Your task to perform on an android device: Turn off the flashlight Image 0: 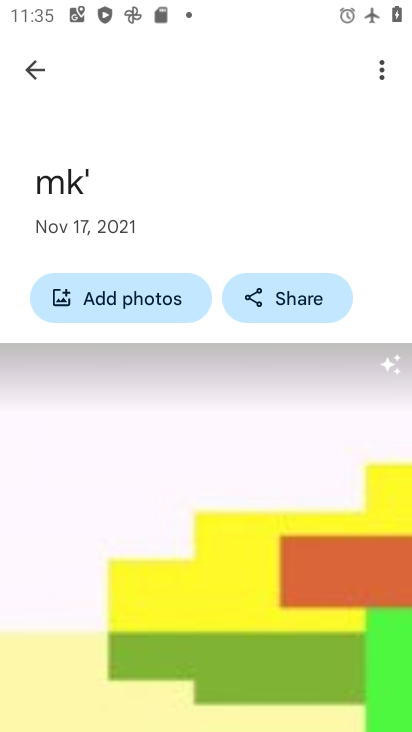
Step 0: press home button
Your task to perform on an android device: Turn off the flashlight Image 1: 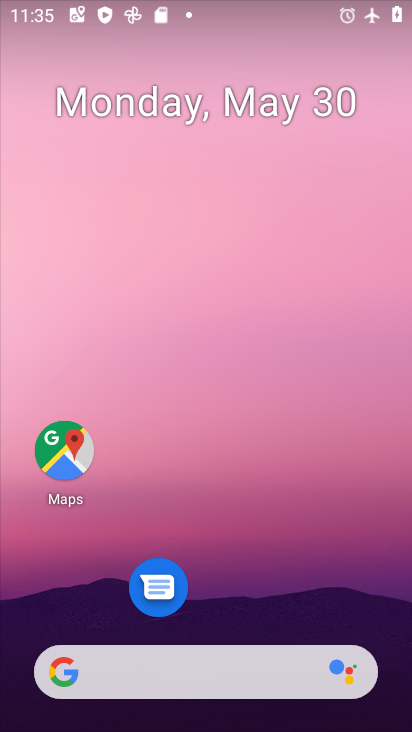
Step 1: drag from (239, 635) to (239, 19)
Your task to perform on an android device: Turn off the flashlight Image 2: 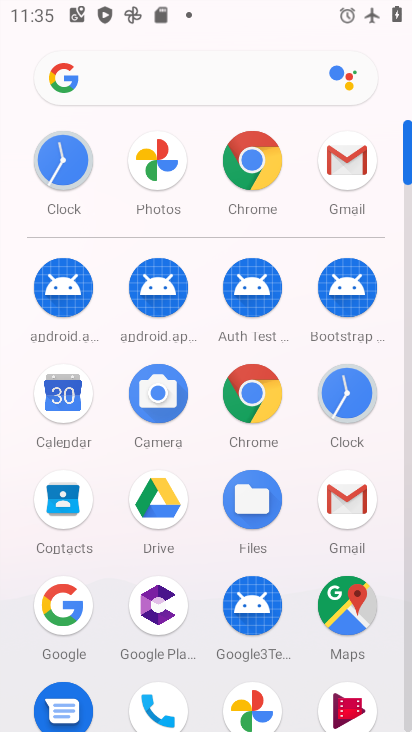
Step 2: drag from (122, 603) to (94, 107)
Your task to perform on an android device: Turn off the flashlight Image 3: 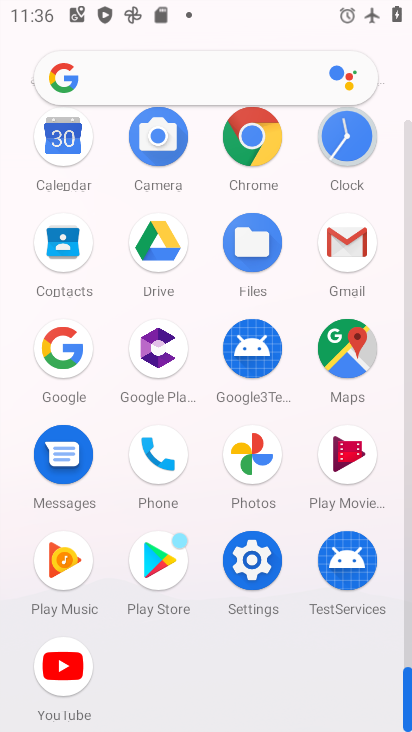
Step 3: click (245, 554)
Your task to perform on an android device: Turn off the flashlight Image 4: 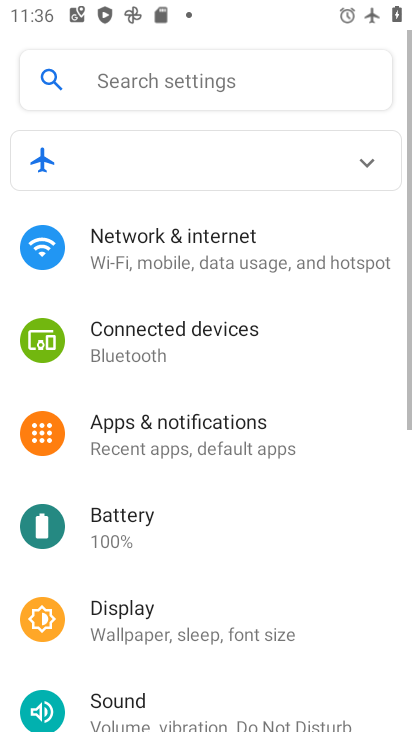
Step 4: drag from (255, 557) to (224, 129)
Your task to perform on an android device: Turn off the flashlight Image 5: 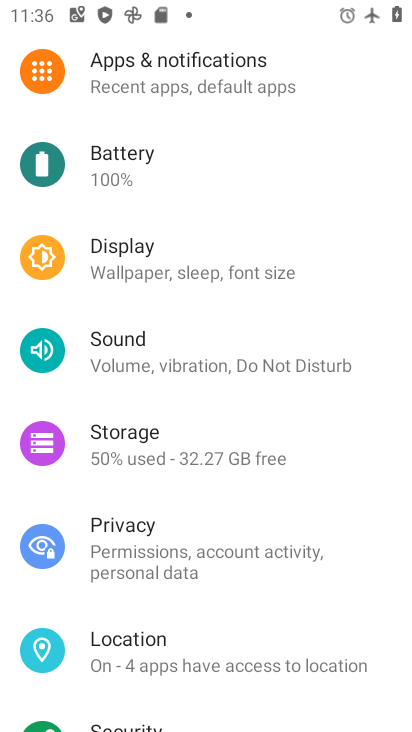
Step 5: click (126, 271)
Your task to perform on an android device: Turn off the flashlight Image 6: 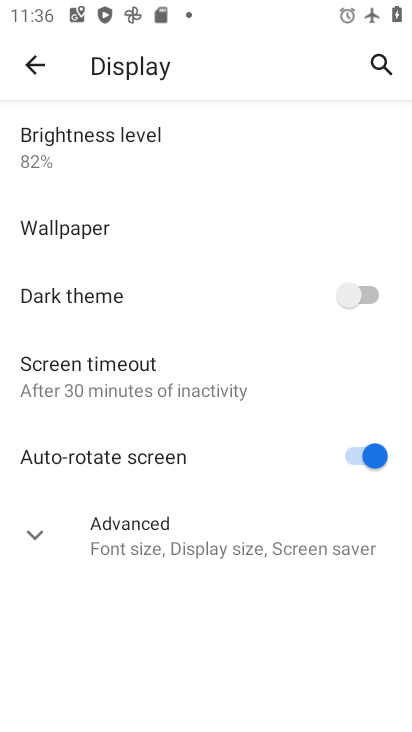
Step 6: task complete